Your task to perform on an android device: turn on priority inbox in the gmail app Image 0: 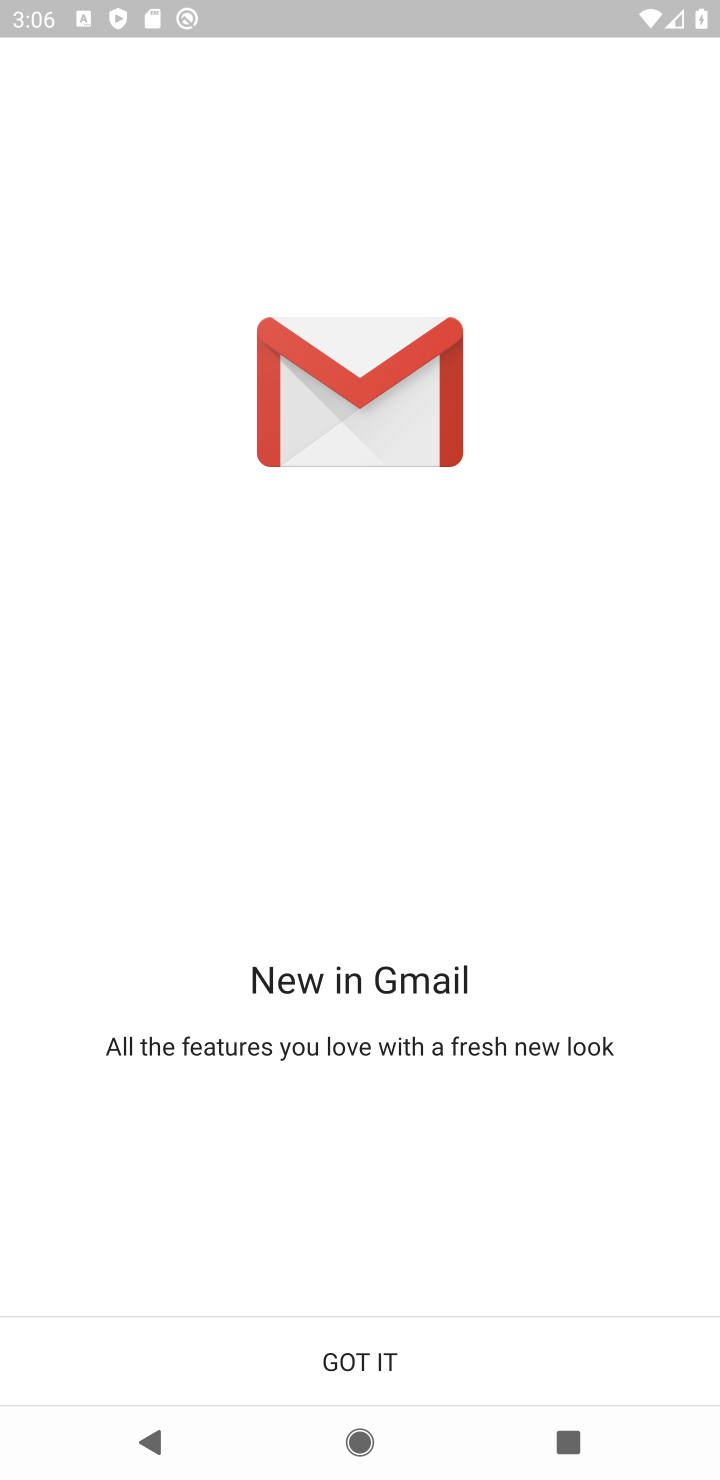
Step 0: click (360, 1349)
Your task to perform on an android device: turn on priority inbox in the gmail app Image 1: 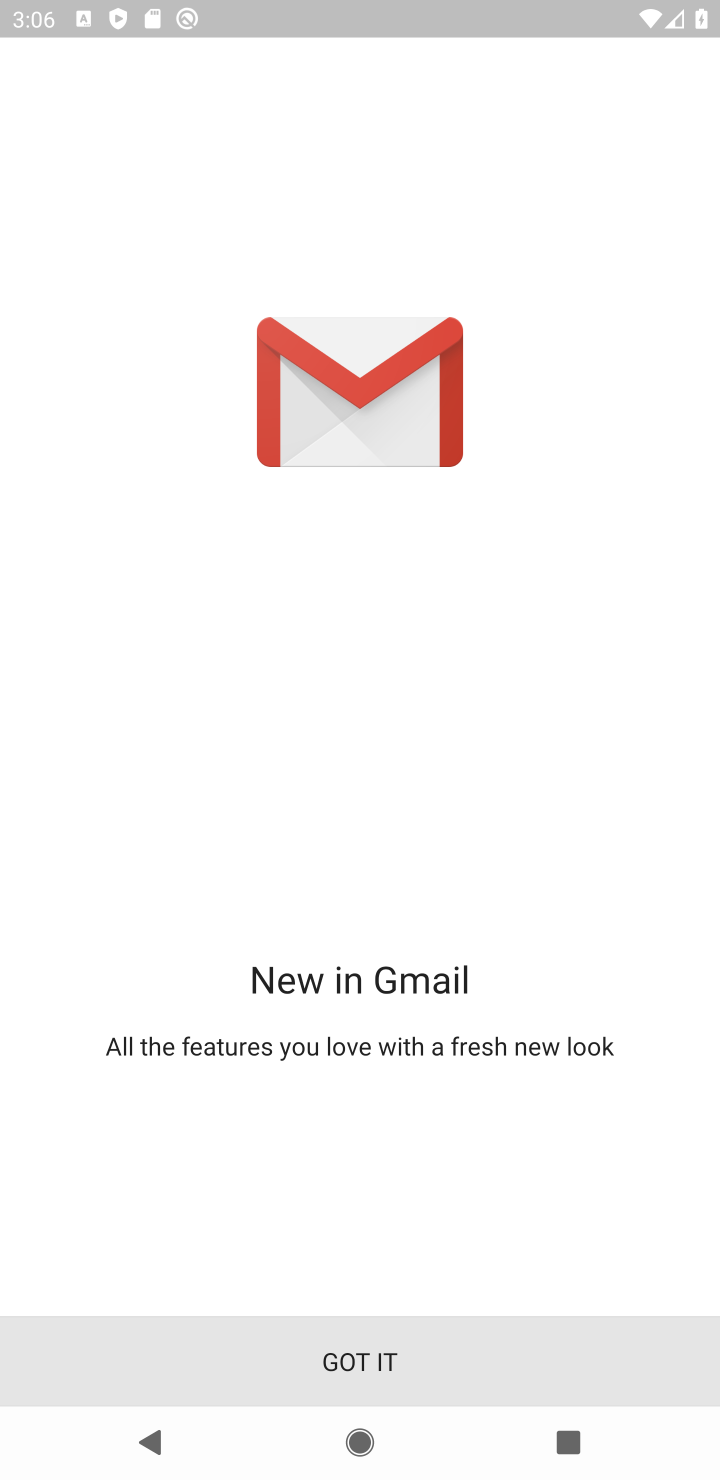
Step 1: click (362, 1349)
Your task to perform on an android device: turn on priority inbox in the gmail app Image 2: 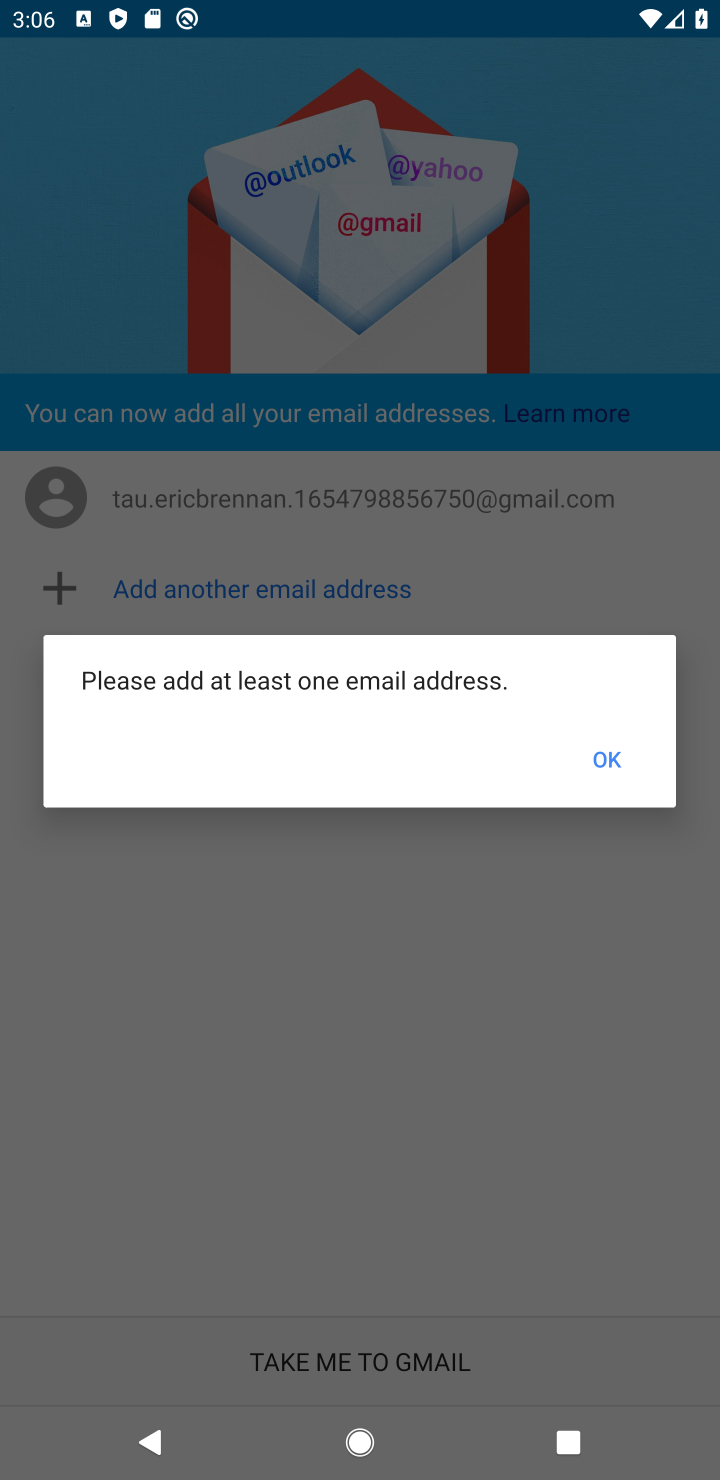
Step 2: click (602, 767)
Your task to perform on an android device: turn on priority inbox in the gmail app Image 3: 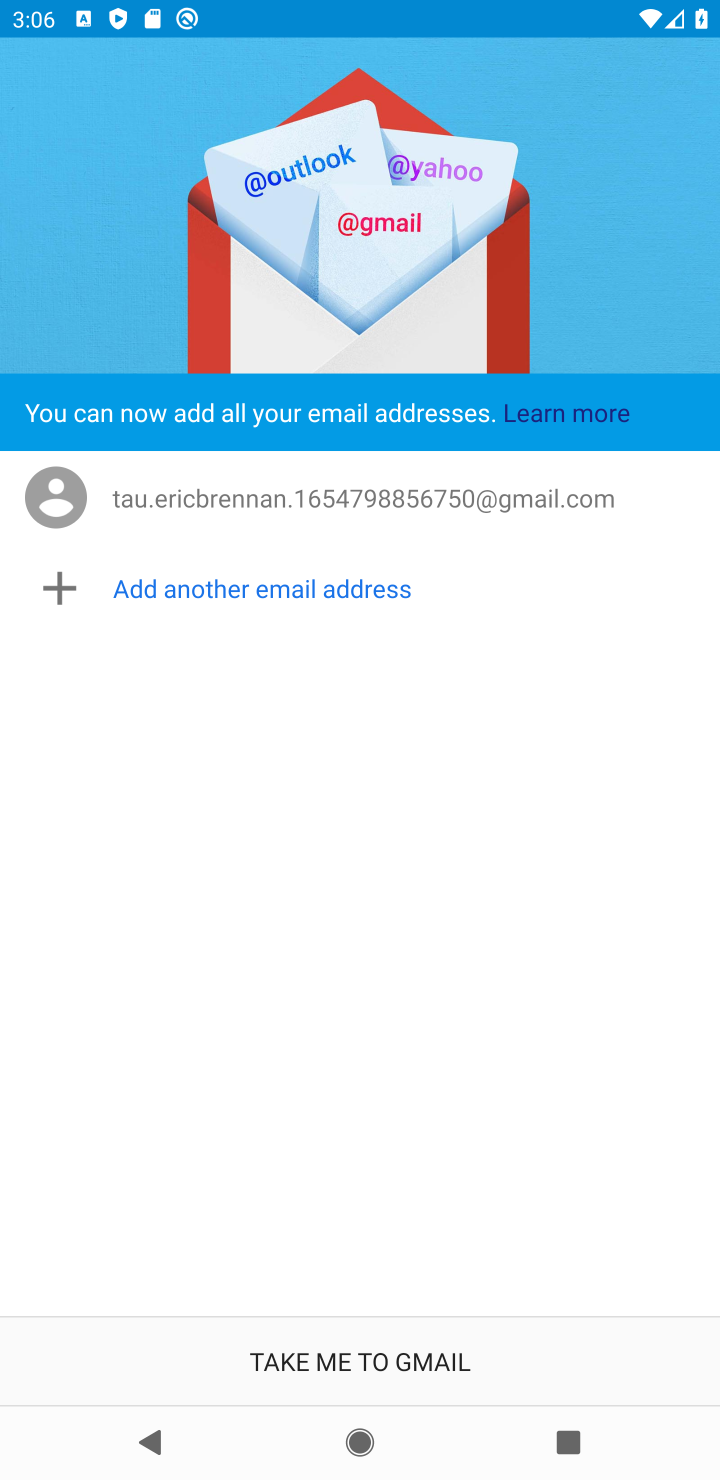
Step 3: click (376, 1345)
Your task to perform on an android device: turn on priority inbox in the gmail app Image 4: 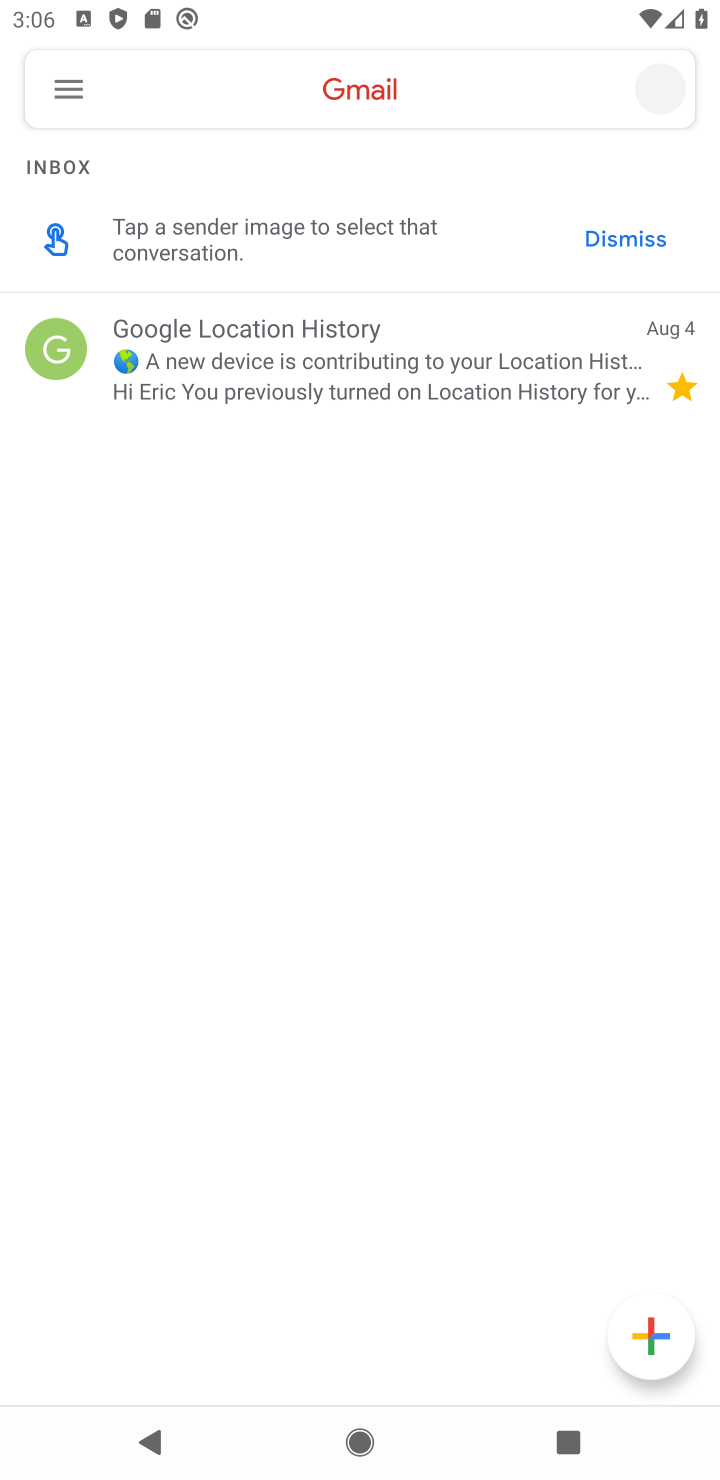
Step 4: task complete